Your task to perform on an android device: move an email to a new category in the gmail app Image 0: 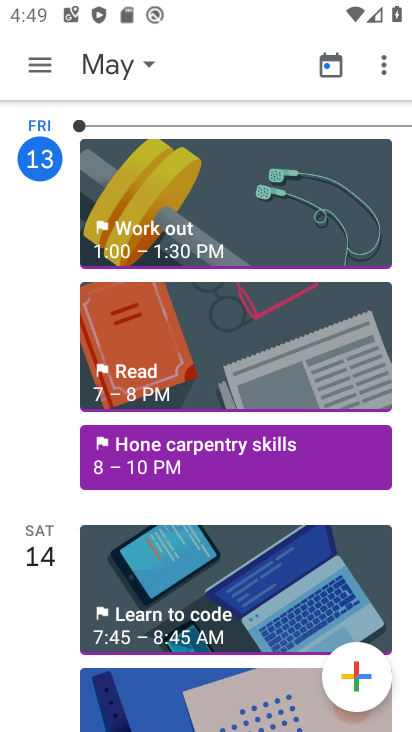
Step 0: press home button
Your task to perform on an android device: move an email to a new category in the gmail app Image 1: 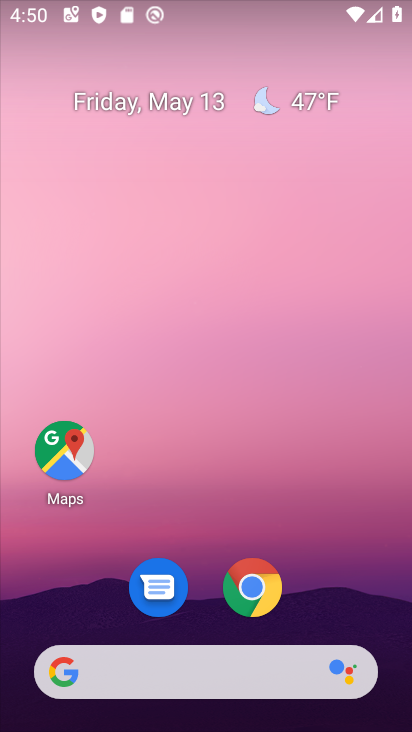
Step 1: drag from (345, 571) to (325, 108)
Your task to perform on an android device: move an email to a new category in the gmail app Image 2: 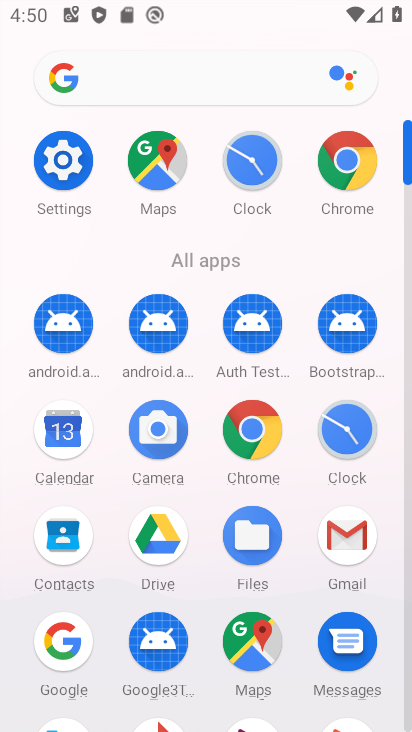
Step 2: click (337, 527)
Your task to perform on an android device: move an email to a new category in the gmail app Image 3: 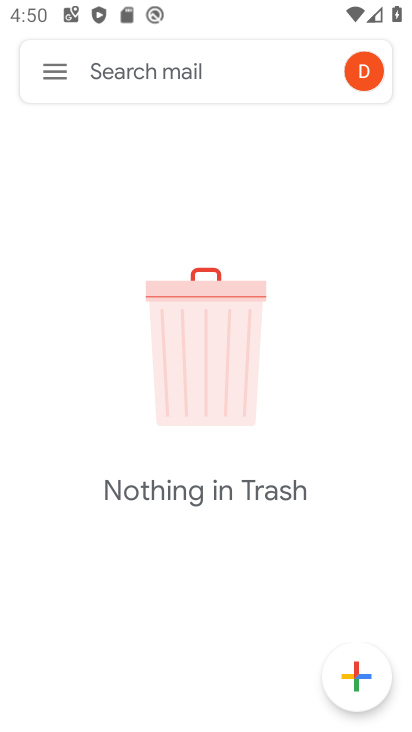
Step 3: click (55, 63)
Your task to perform on an android device: move an email to a new category in the gmail app Image 4: 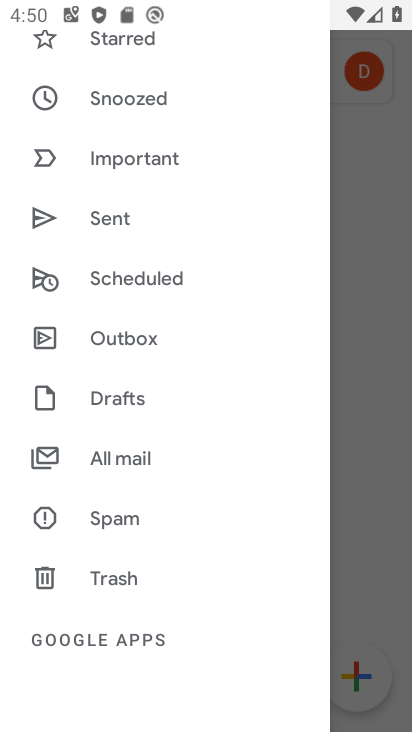
Step 4: task complete